Your task to perform on an android device: change text size in settings app Image 0: 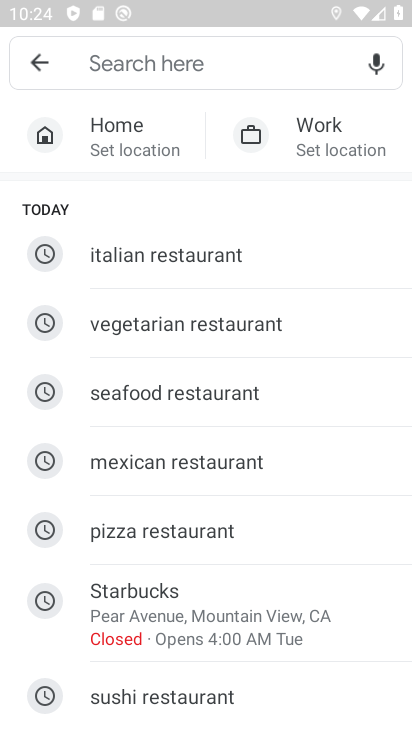
Step 0: press home button
Your task to perform on an android device: change text size in settings app Image 1: 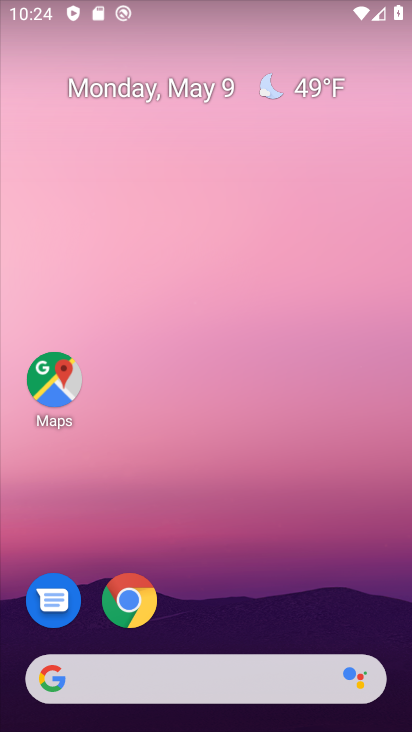
Step 1: drag from (371, 605) to (324, 158)
Your task to perform on an android device: change text size in settings app Image 2: 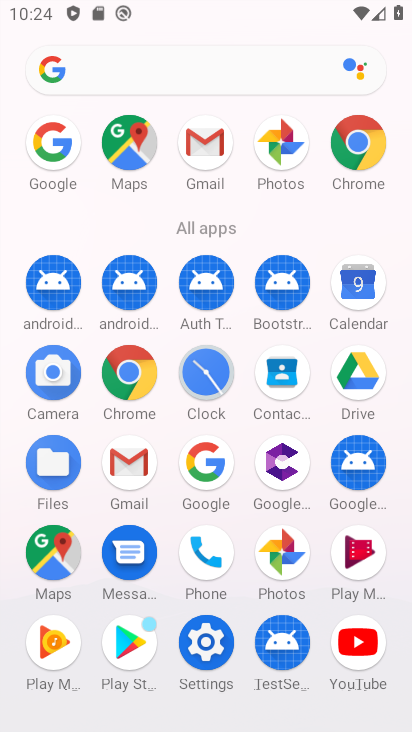
Step 2: click (193, 655)
Your task to perform on an android device: change text size in settings app Image 3: 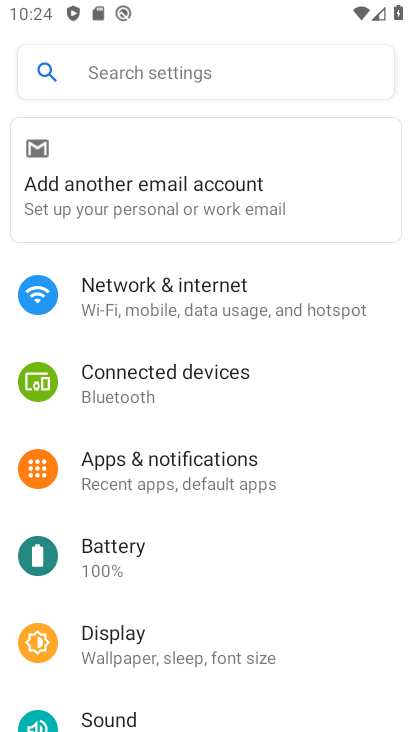
Step 3: click (181, 647)
Your task to perform on an android device: change text size in settings app Image 4: 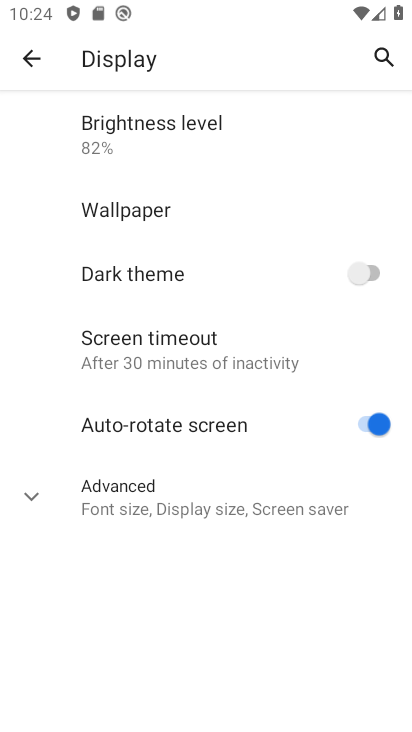
Step 4: click (234, 498)
Your task to perform on an android device: change text size in settings app Image 5: 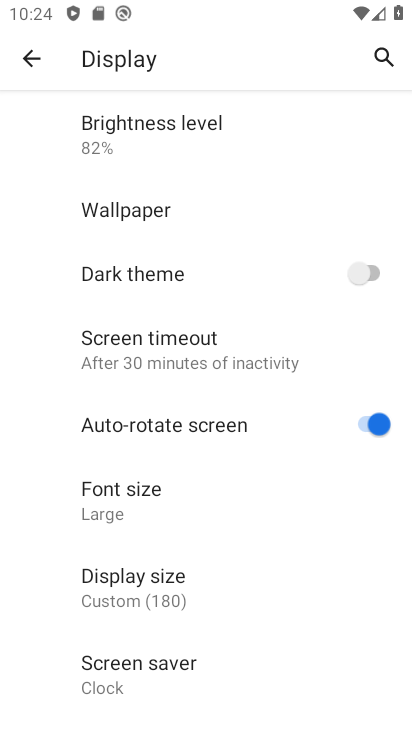
Step 5: click (137, 501)
Your task to perform on an android device: change text size in settings app Image 6: 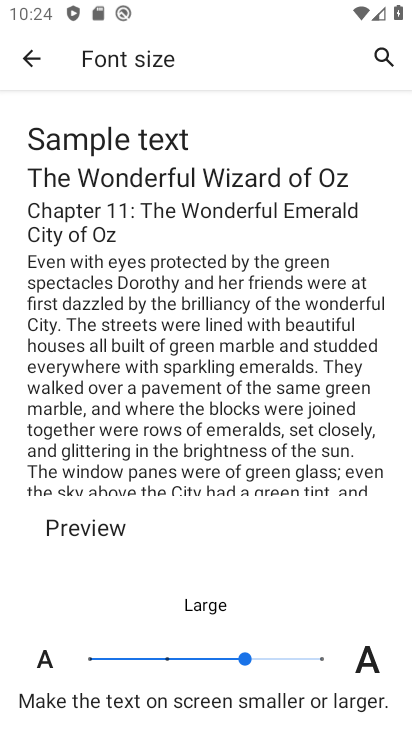
Step 6: click (89, 657)
Your task to perform on an android device: change text size in settings app Image 7: 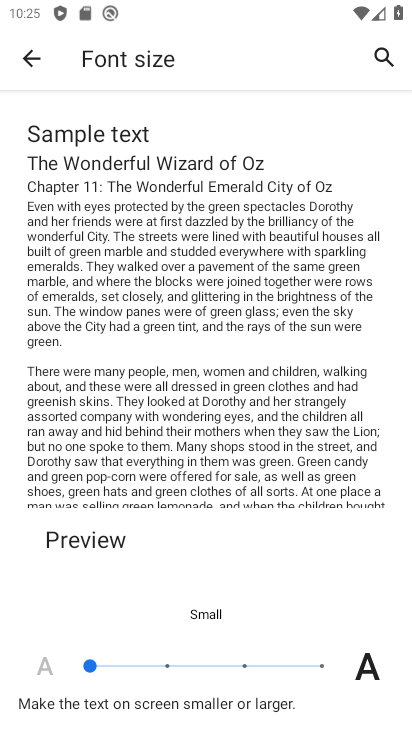
Step 7: task complete